Your task to perform on an android device: search for starred emails in the gmail app Image 0: 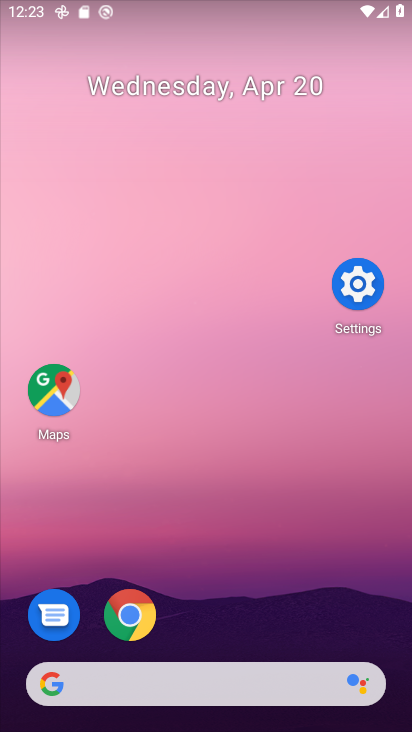
Step 0: drag from (212, 500) to (290, 129)
Your task to perform on an android device: search for starred emails in the gmail app Image 1: 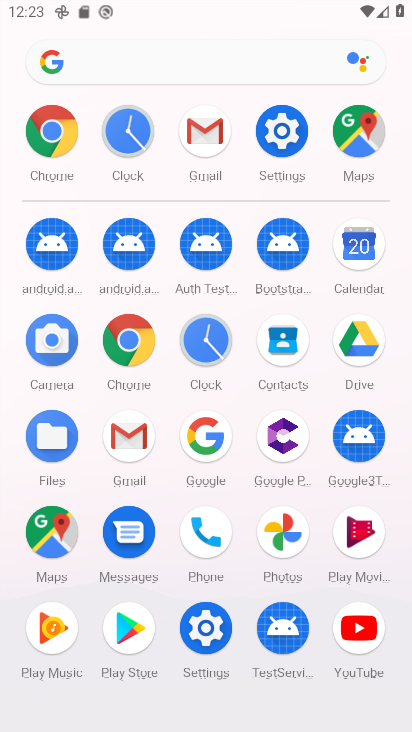
Step 1: click (120, 434)
Your task to perform on an android device: search for starred emails in the gmail app Image 2: 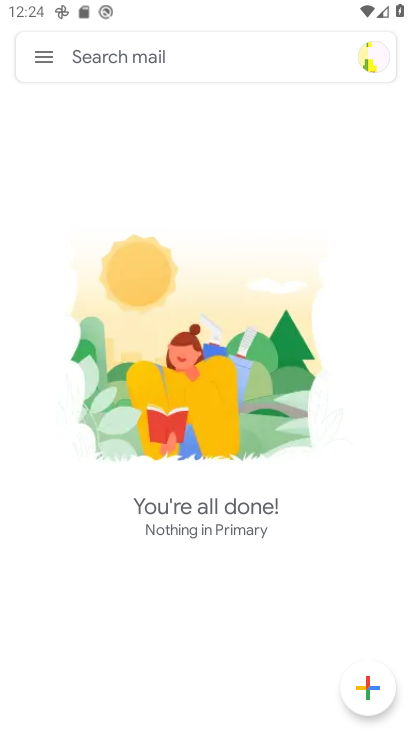
Step 2: drag from (298, 580) to (272, 256)
Your task to perform on an android device: search for starred emails in the gmail app Image 3: 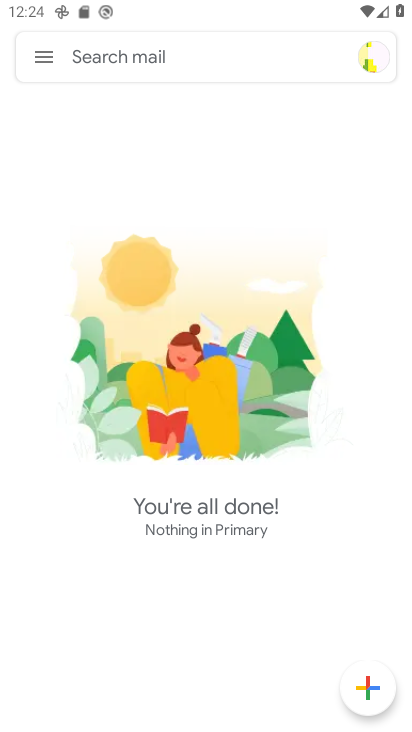
Step 3: click (51, 66)
Your task to perform on an android device: search for starred emails in the gmail app Image 4: 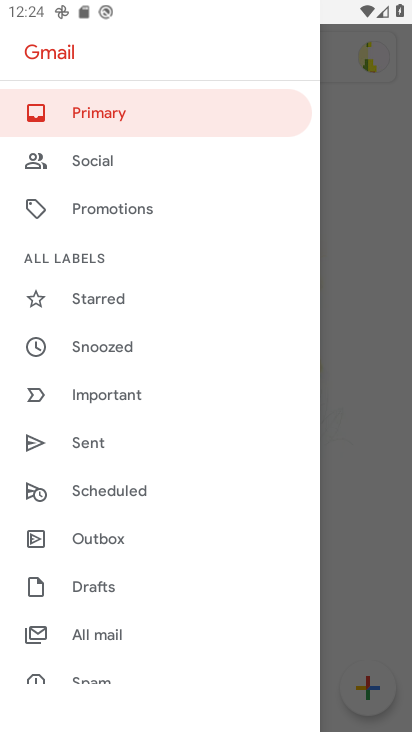
Step 4: click (119, 303)
Your task to perform on an android device: search for starred emails in the gmail app Image 5: 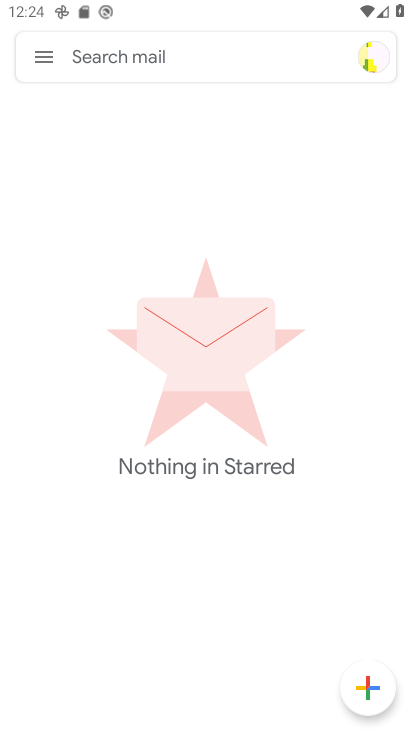
Step 5: drag from (226, 464) to (275, 252)
Your task to perform on an android device: search for starred emails in the gmail app Image 6: 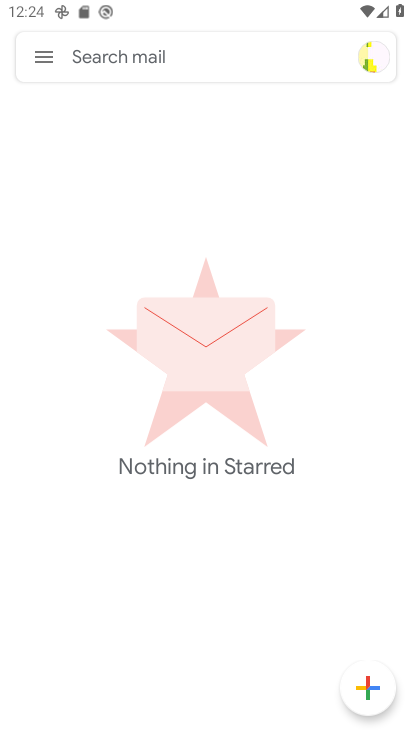
Step 6: click (195, 163)
Your task to perform on an android device: search for starred emails in the gmail app Image 7: 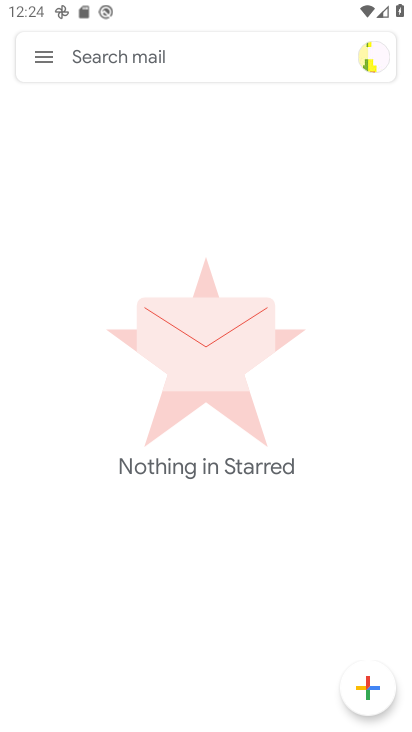
Step 7: task complete